Your task to perform on an android device: check storage Image 0: 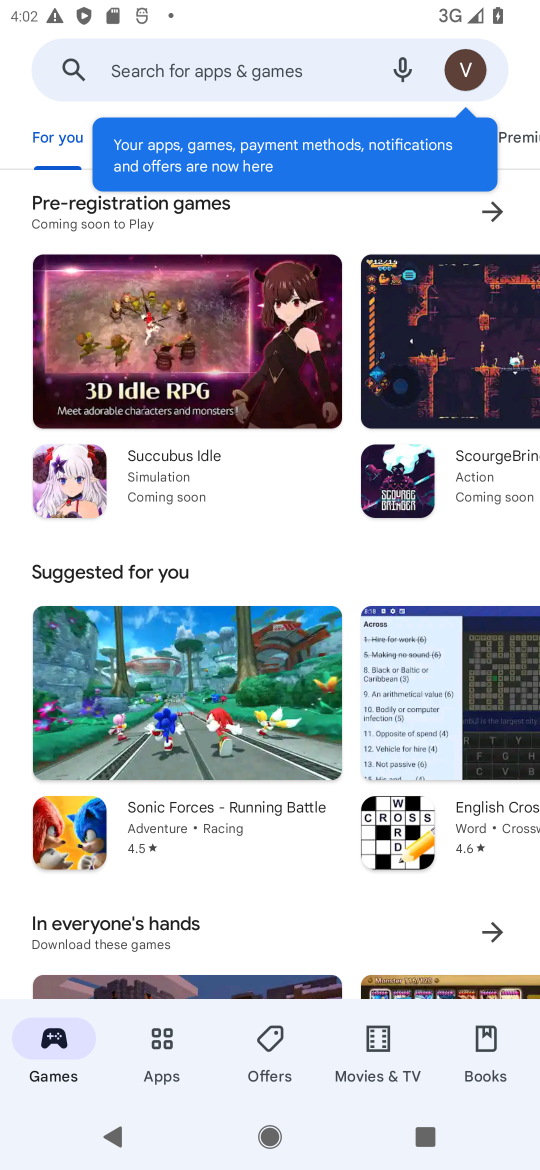
Step 0: press home button
Your task to perform on an android device: check storage Image 1: 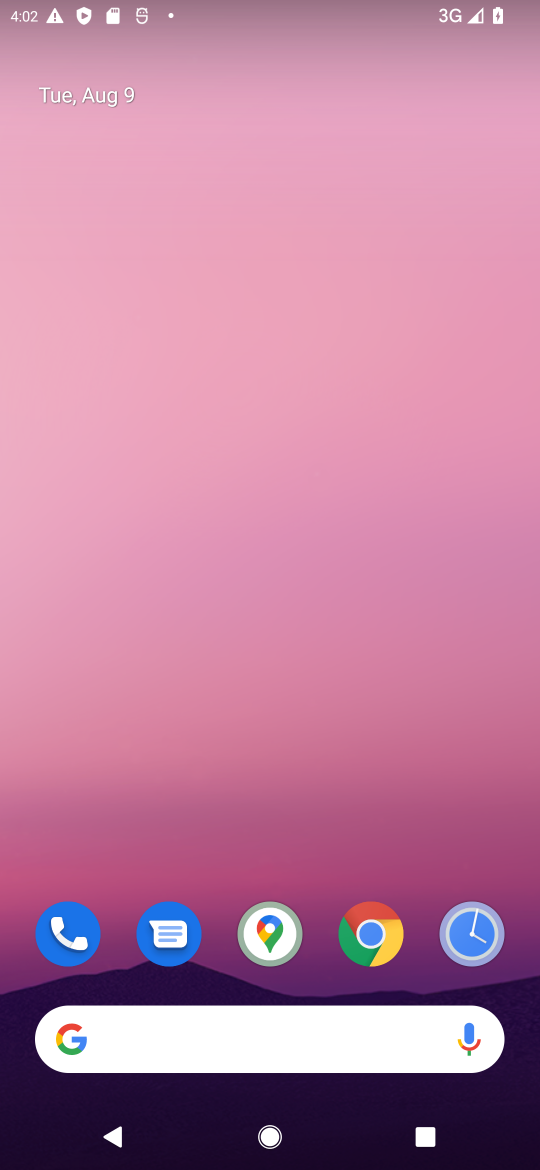
Step 1: drag from (303, 985) to (393, 47)
Your task to perform on an android device: check storage Image 2: 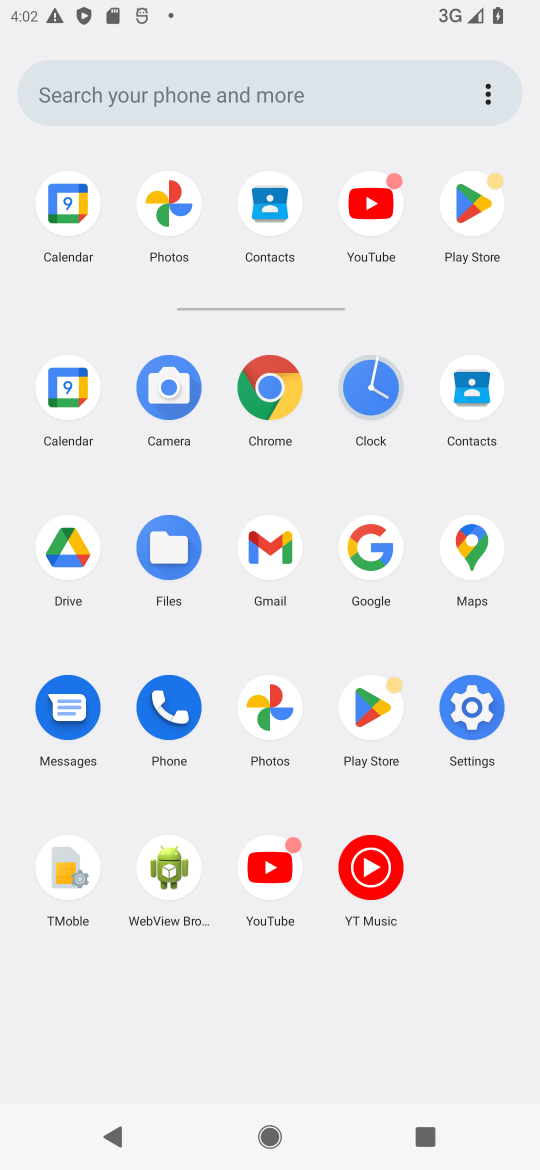
Step 2: click (451, 719)
Your task to perform on an android device: check storage Image 3: 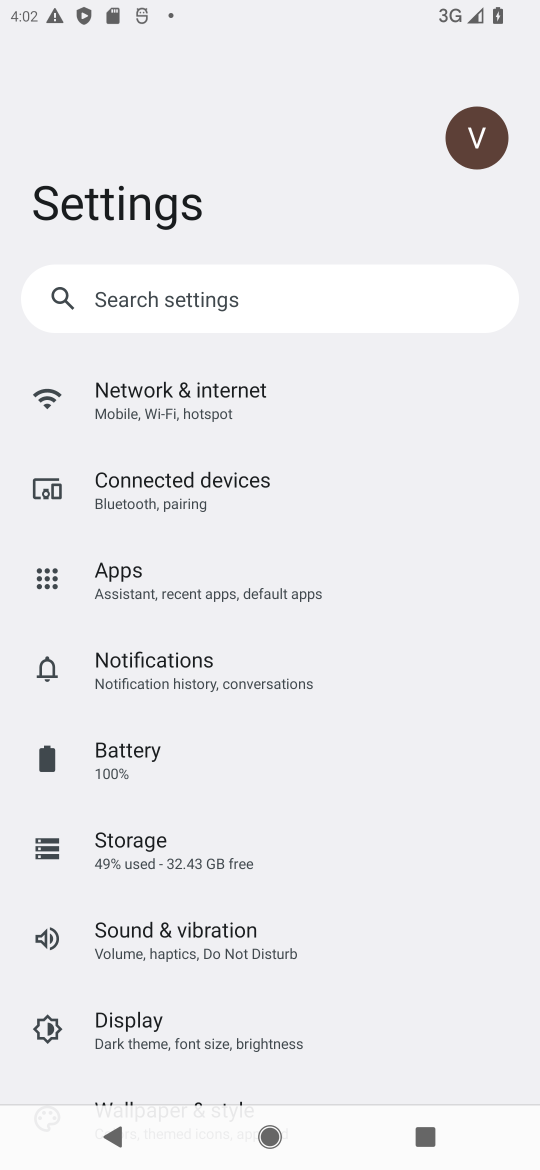
Step 3: click (151, 829)
Your task to perform on an android device: check storage Image 4: 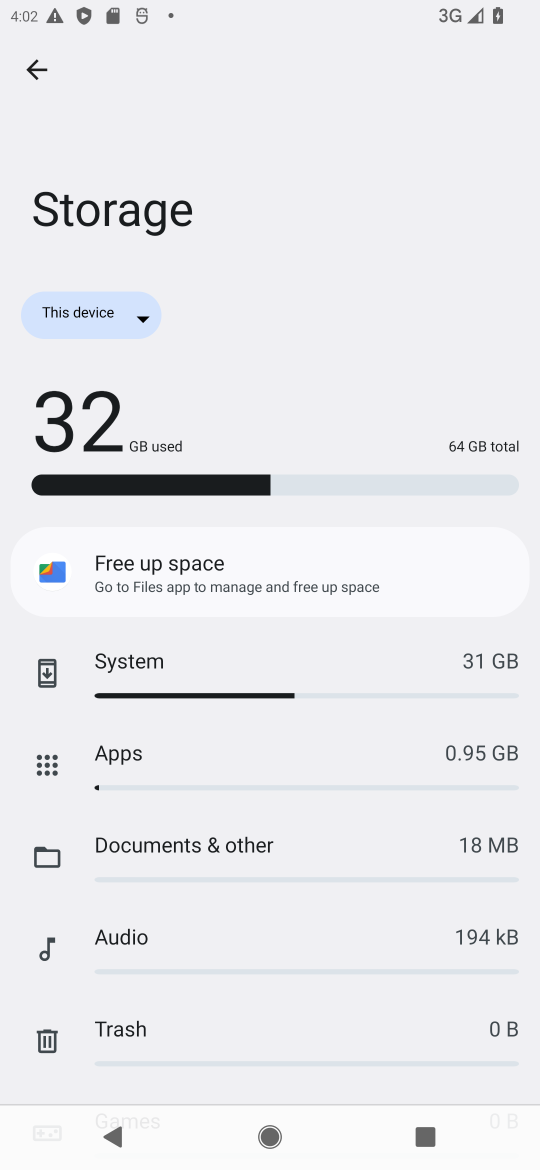
Step 4: task complete